Your task to perform on an android device: change your default location settings in chrome Image 0: 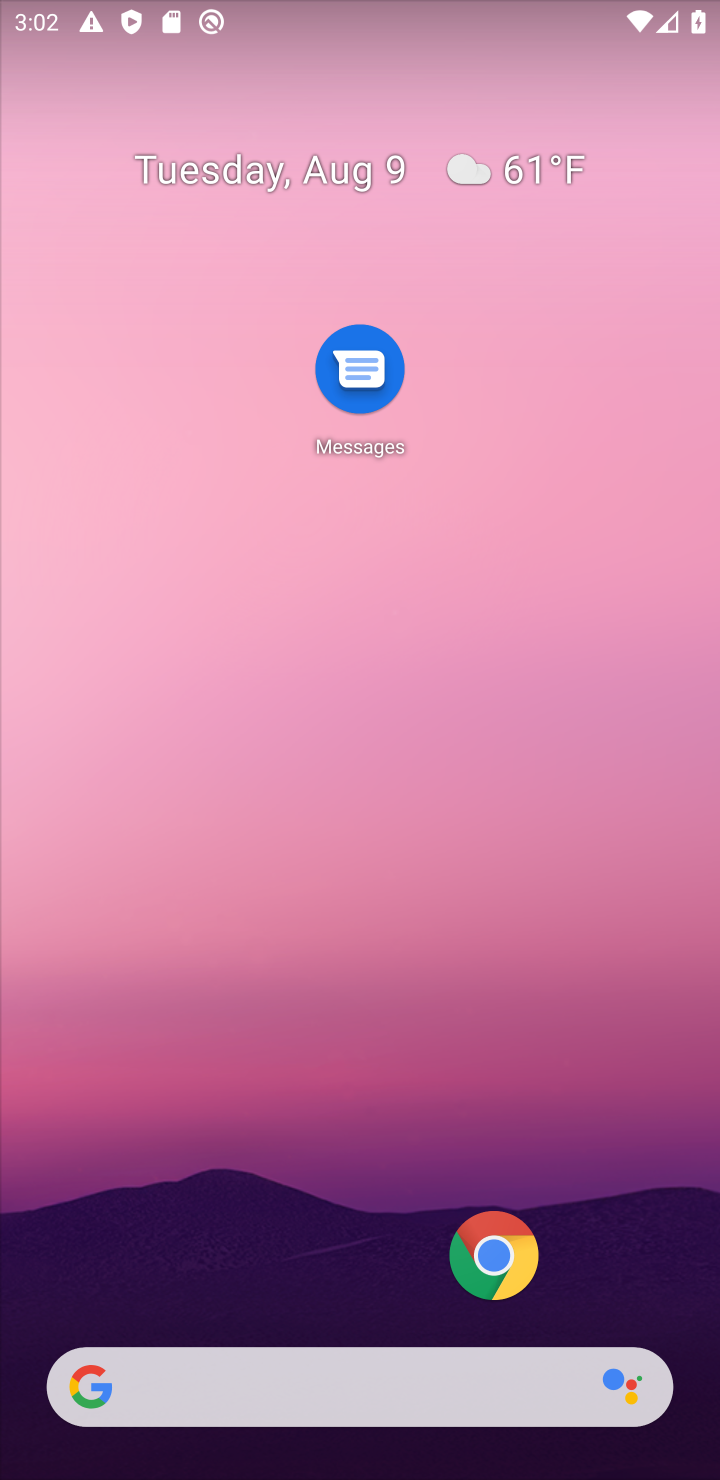
Step 0: drag from (358, 970) to (442, 426)
Your task to perform on an android device: change your default location settings in chrome Image 1: 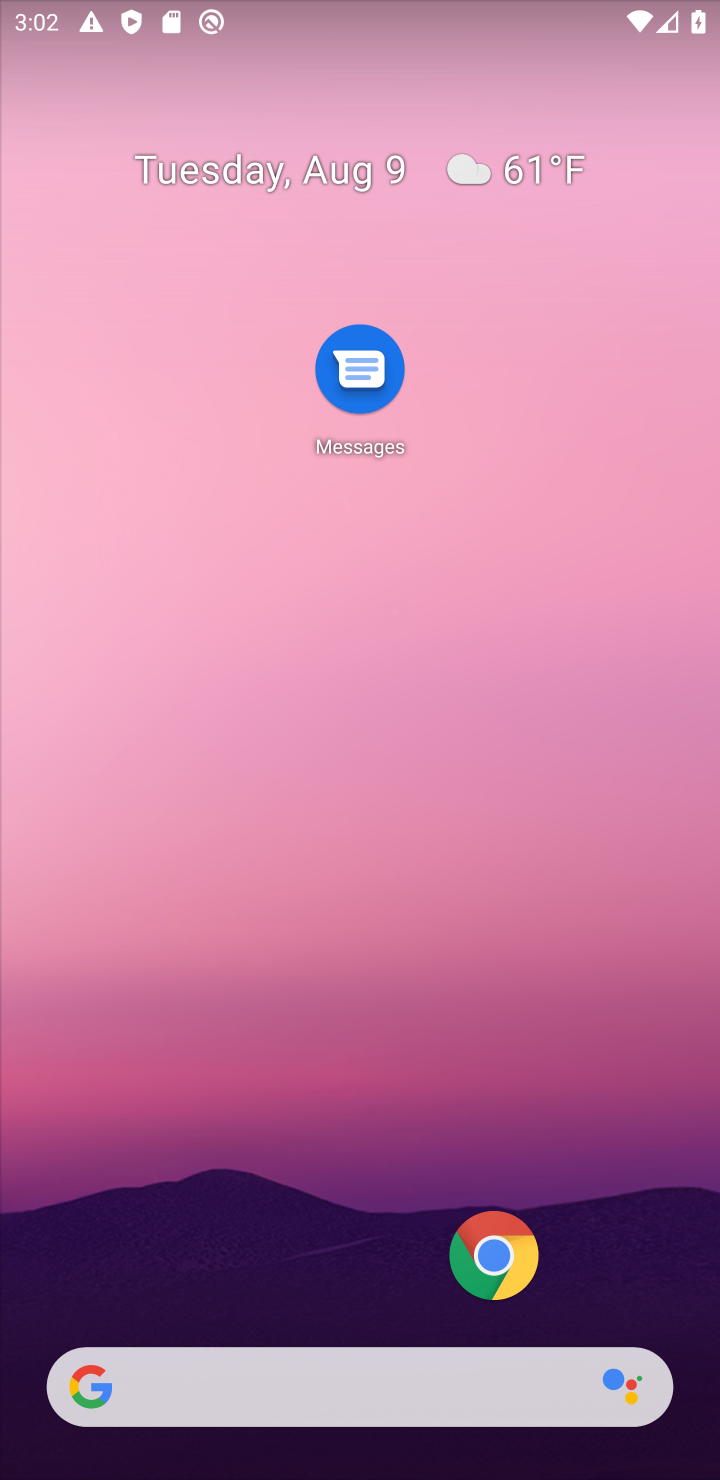
Step 1: drag from (321, 1355) to (492, 244)
Your task to perform on an android device: change your default location settings in chrome Image 2: 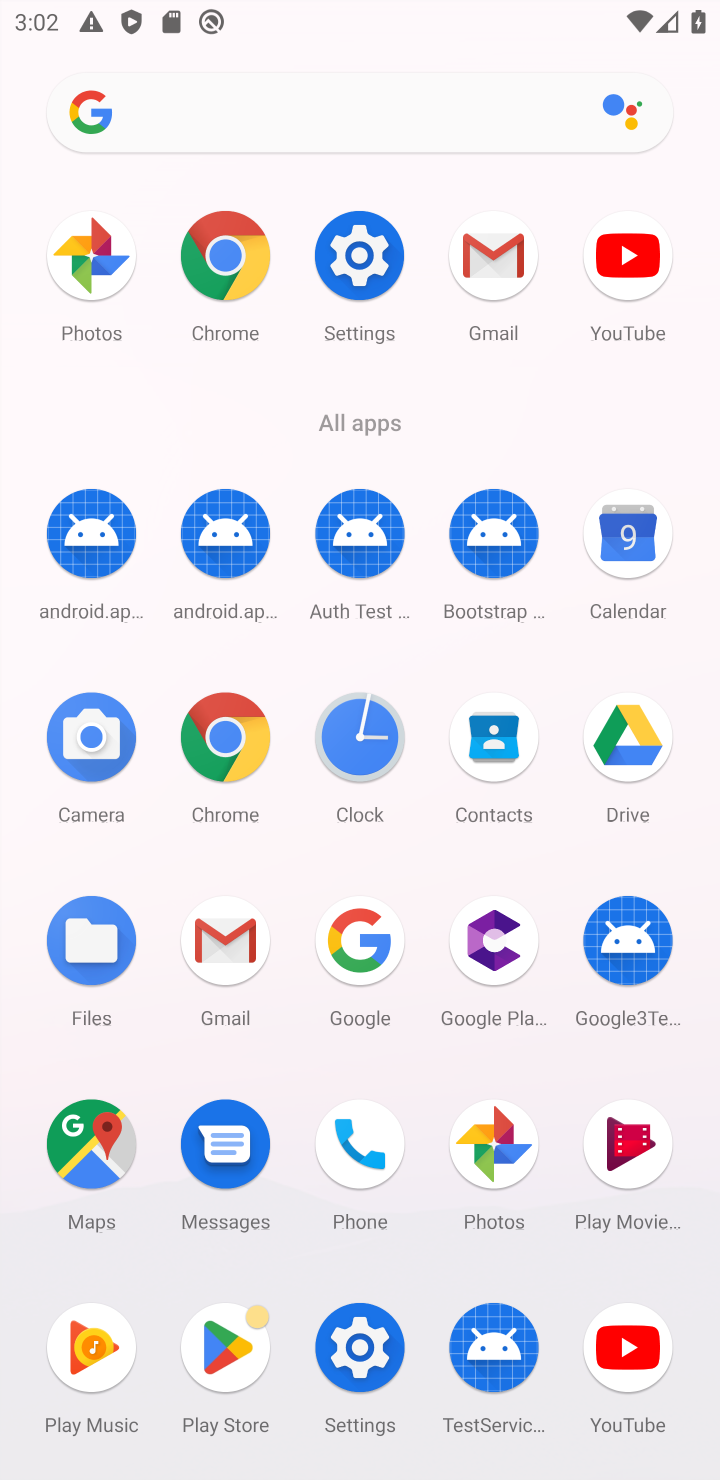
Step 2: click (241, 725)
Your task to perform on an android device: change your default location settings in chrome Image 3: 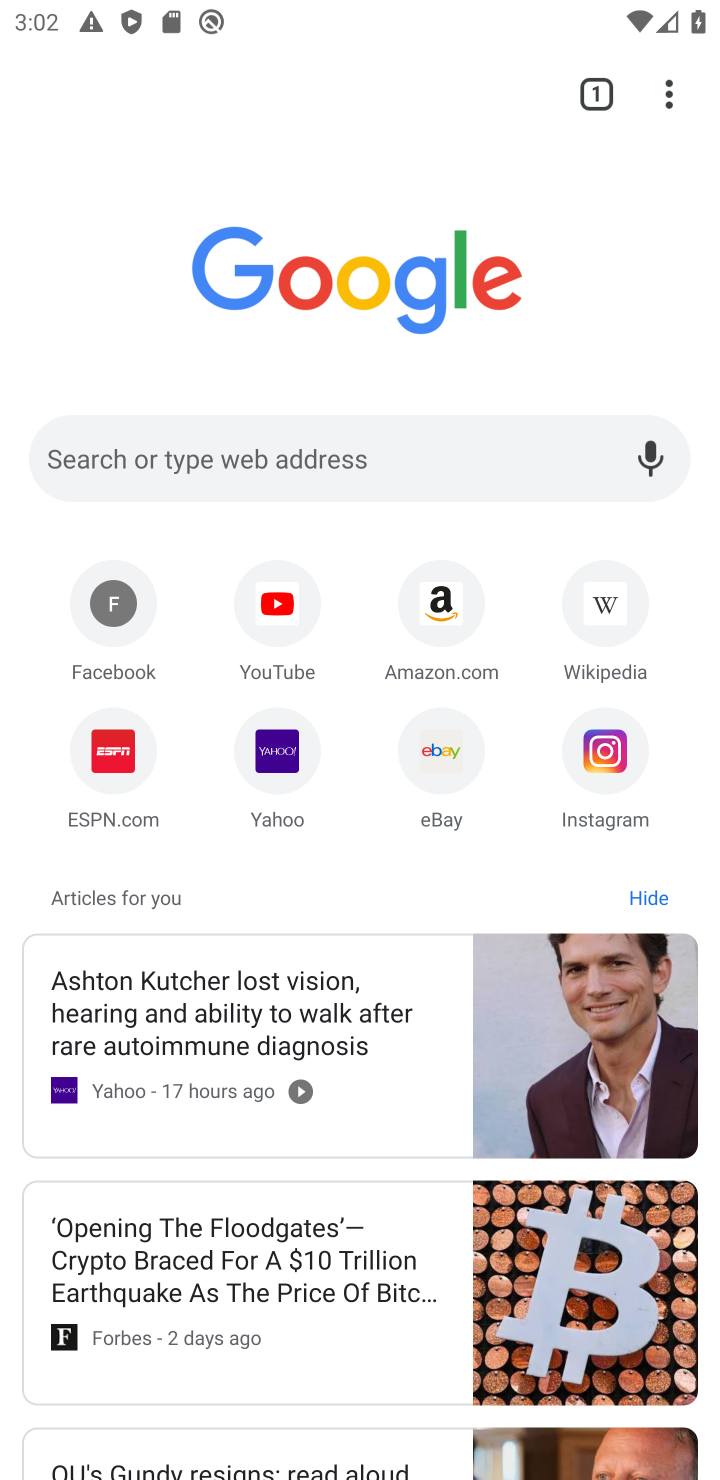
Step 3: click (659, 104)
Your task to perform on an android device: change your default location settings in chrome Image 4: 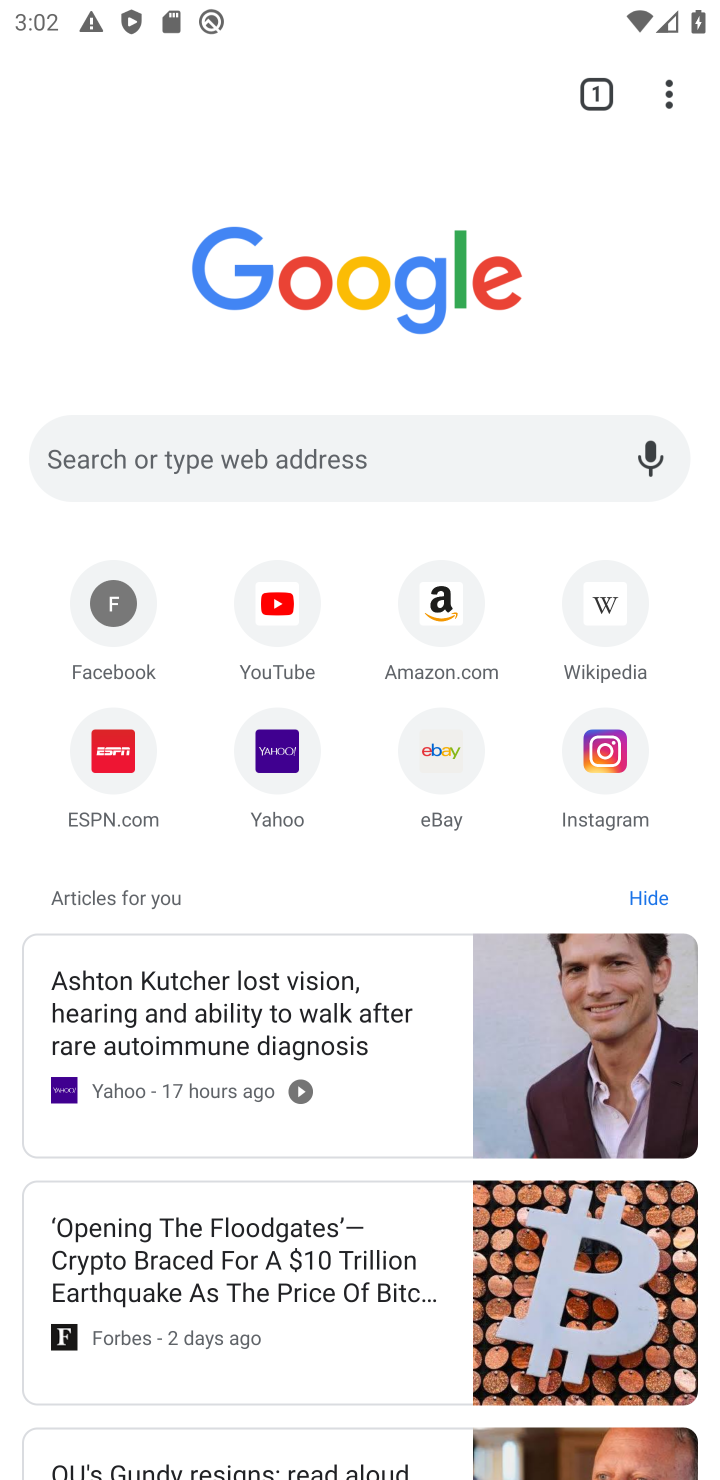
Step 4: click (659, 87)
Your task to perform on an android device: change your default location settings in chrome Image 5: 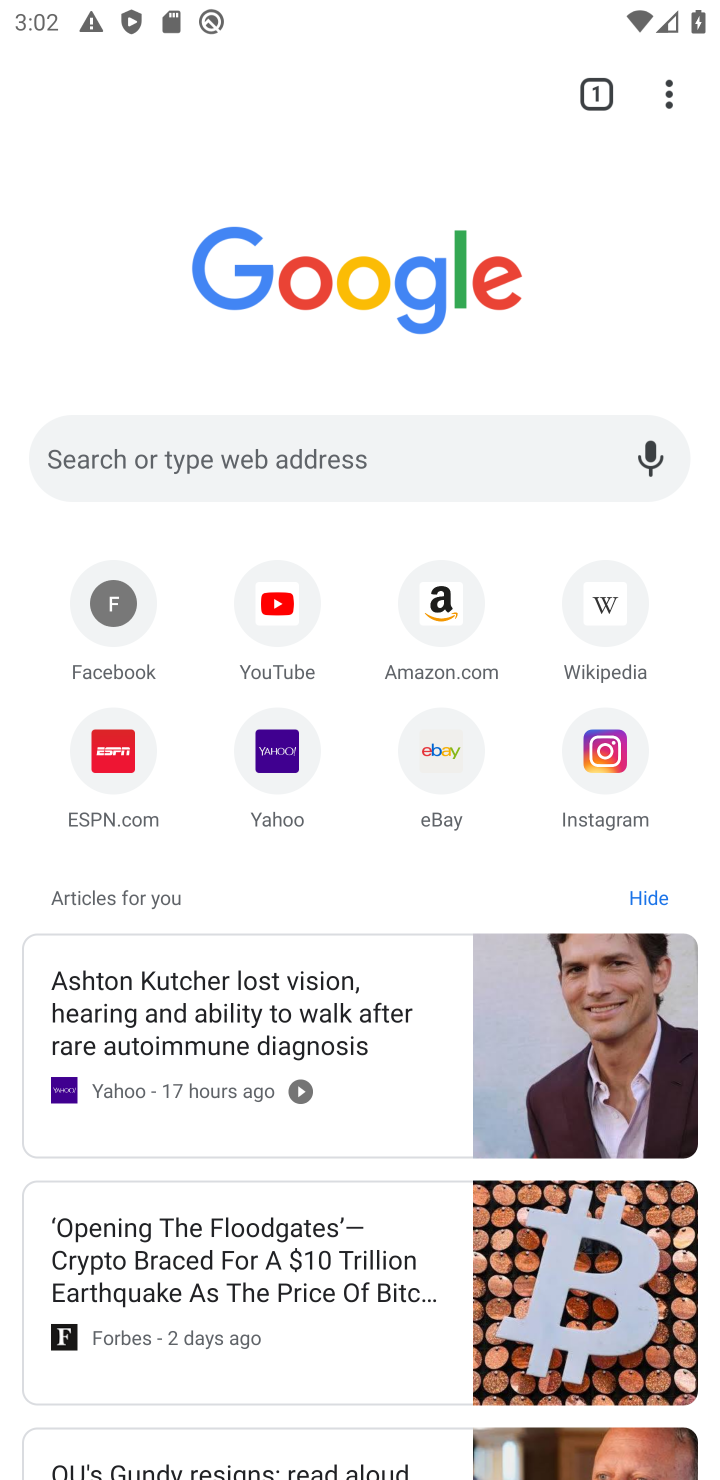
Step 5: click (663, 74)
Your task to perform on an android device: change your default location settings in chrome Image 6: 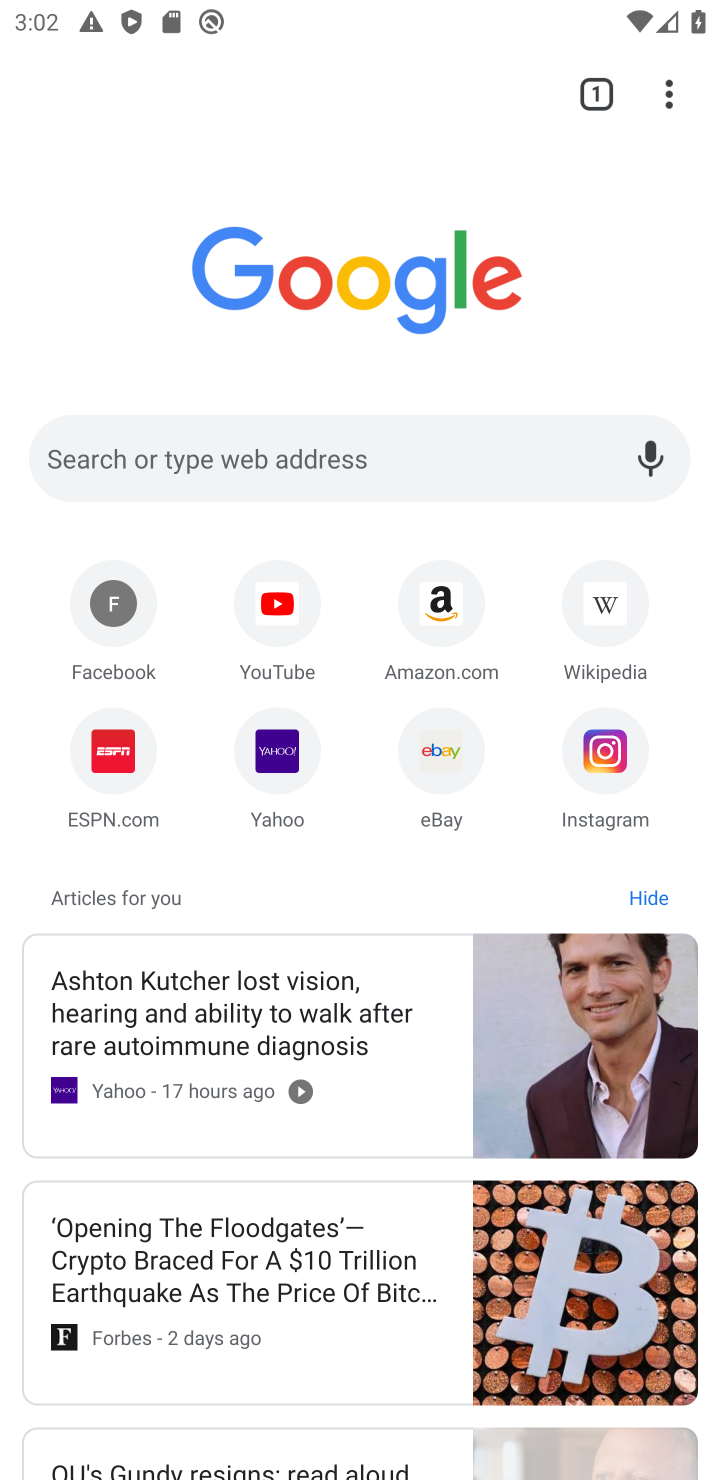
Step 6: click (670, 91)
Your task to perform on an android device: change your default location settings in chrome Image 7: 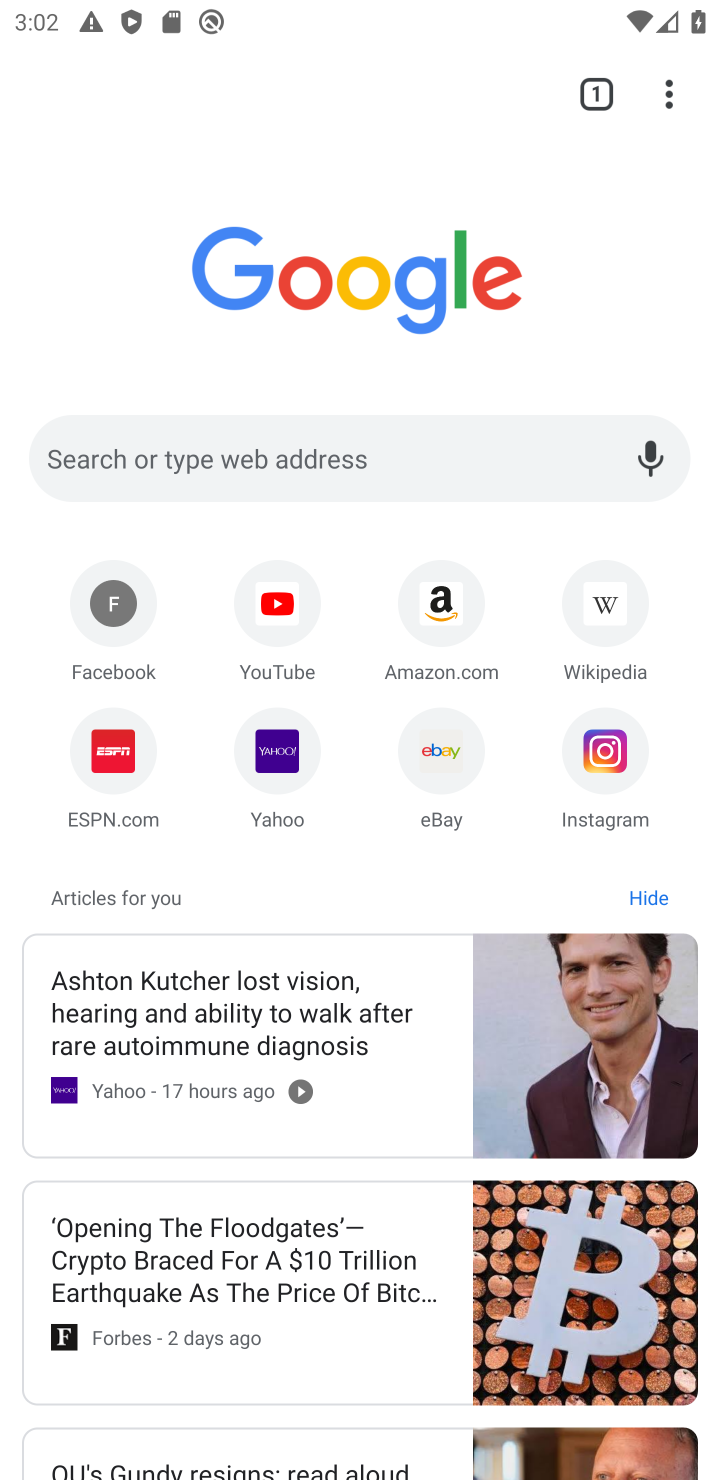
Step 7: click (670, 91)
Your task to perform on an android device: change your default location settings in chrome Image 8: 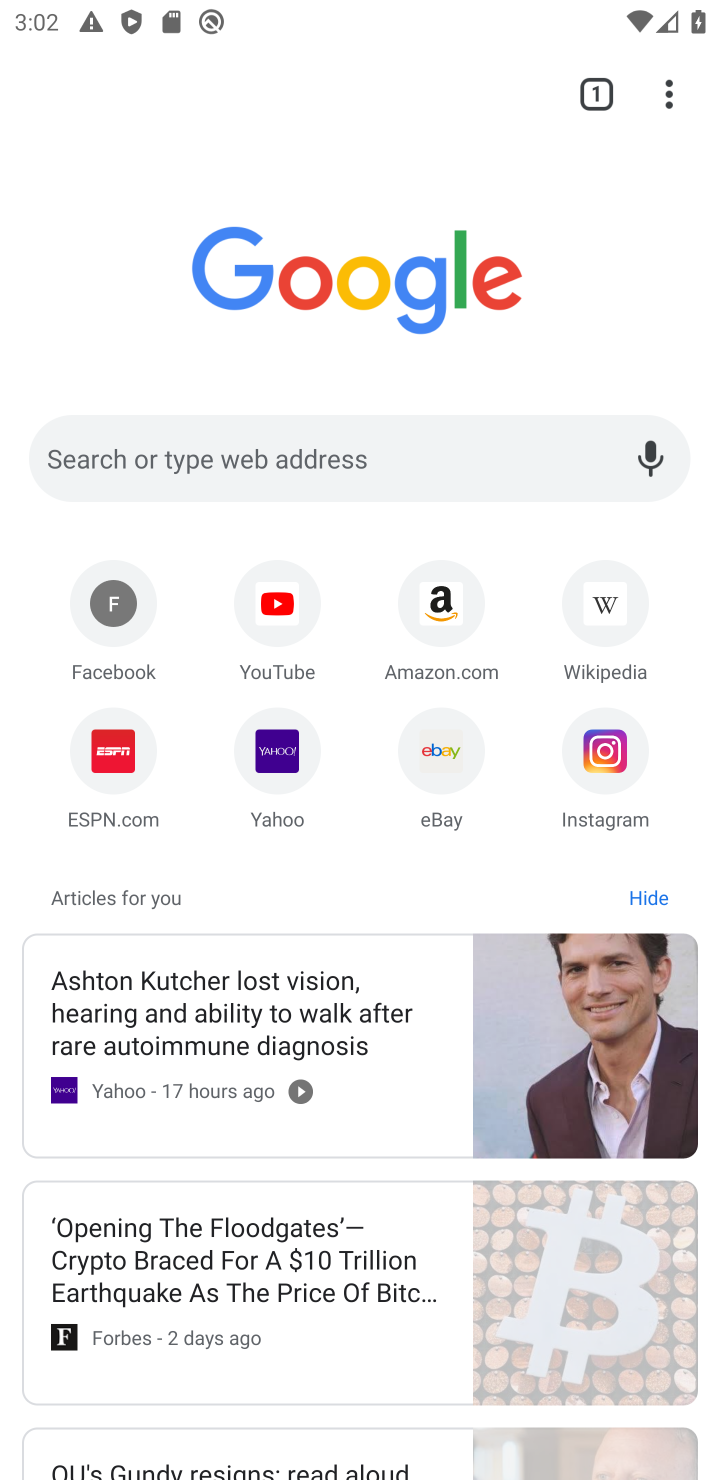
Step 8: click (670, 91)
Your task to perform on an android device: change your default location settings in chrome Image 9: 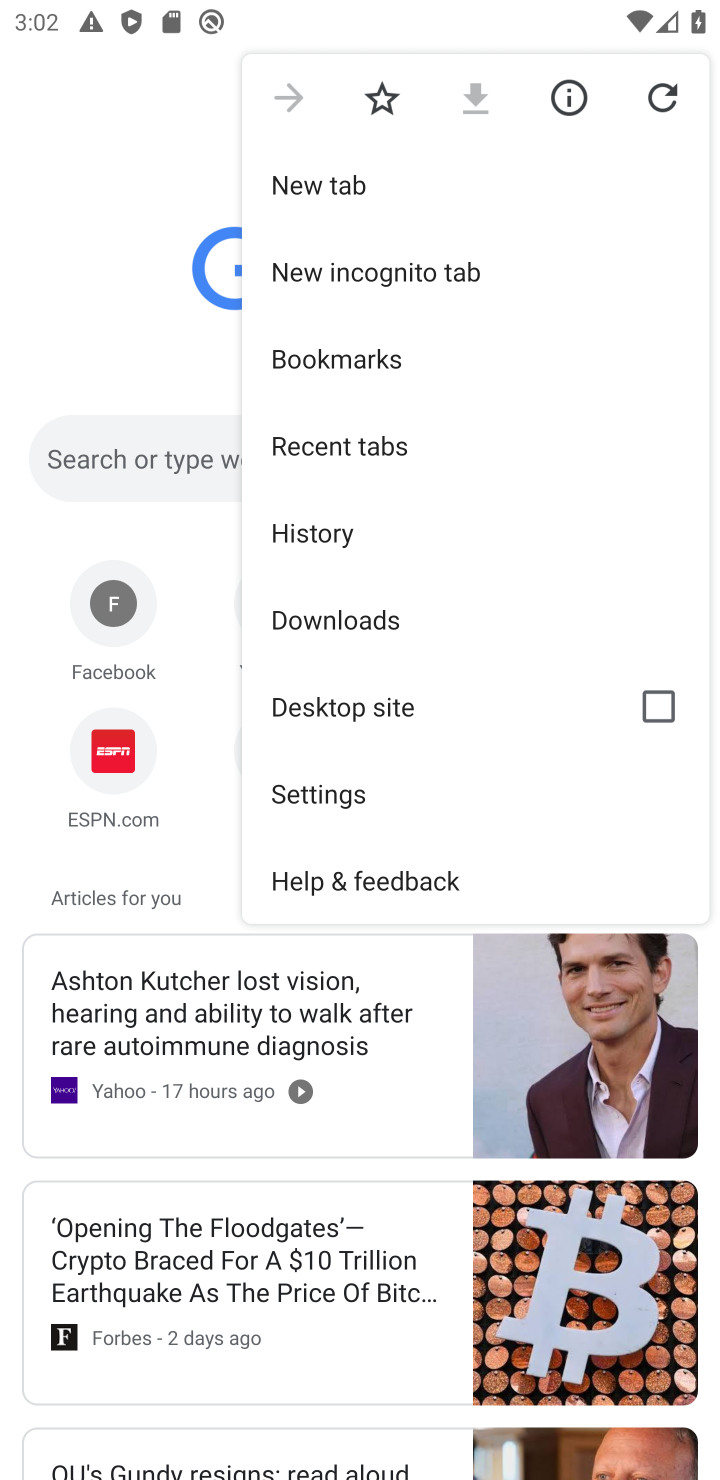
Step 9: click (368, 799)
Your task to perform on an android device: change your default location settings in chrome Image 10: 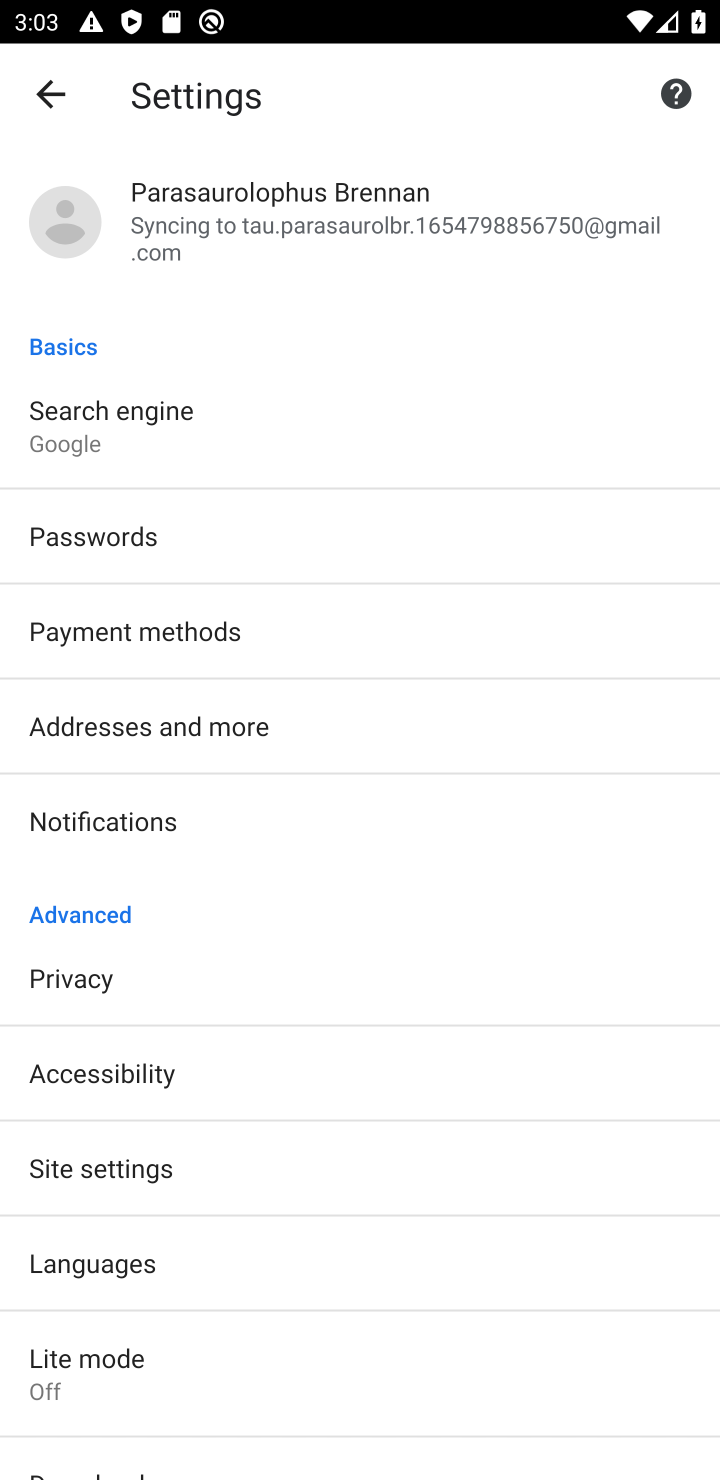
Step 10: click (185, 1162)
Your task to perform on an android device: change your default location settings in chrome Image 11: 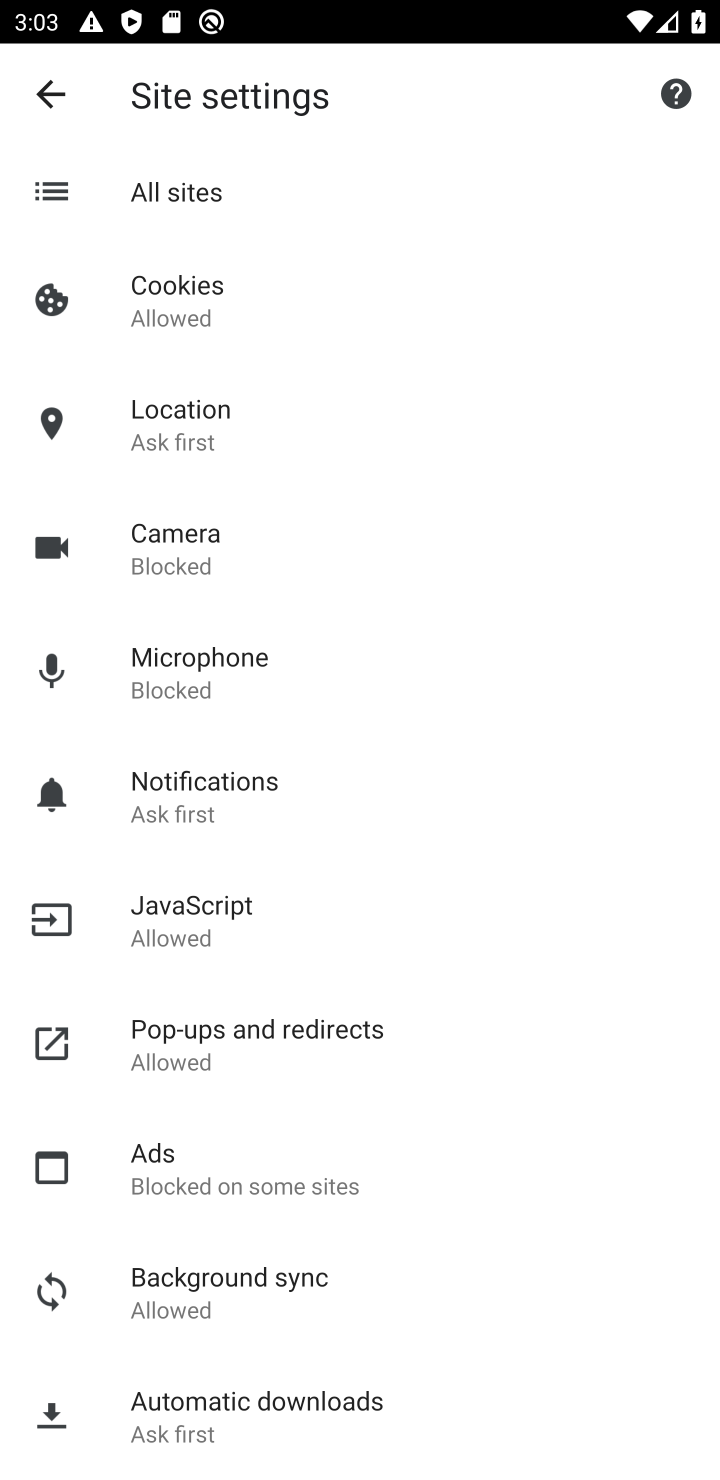
Step 11: click (206, 435)
Your task to perform on an android device: change your default location settings in chrome Image 12: 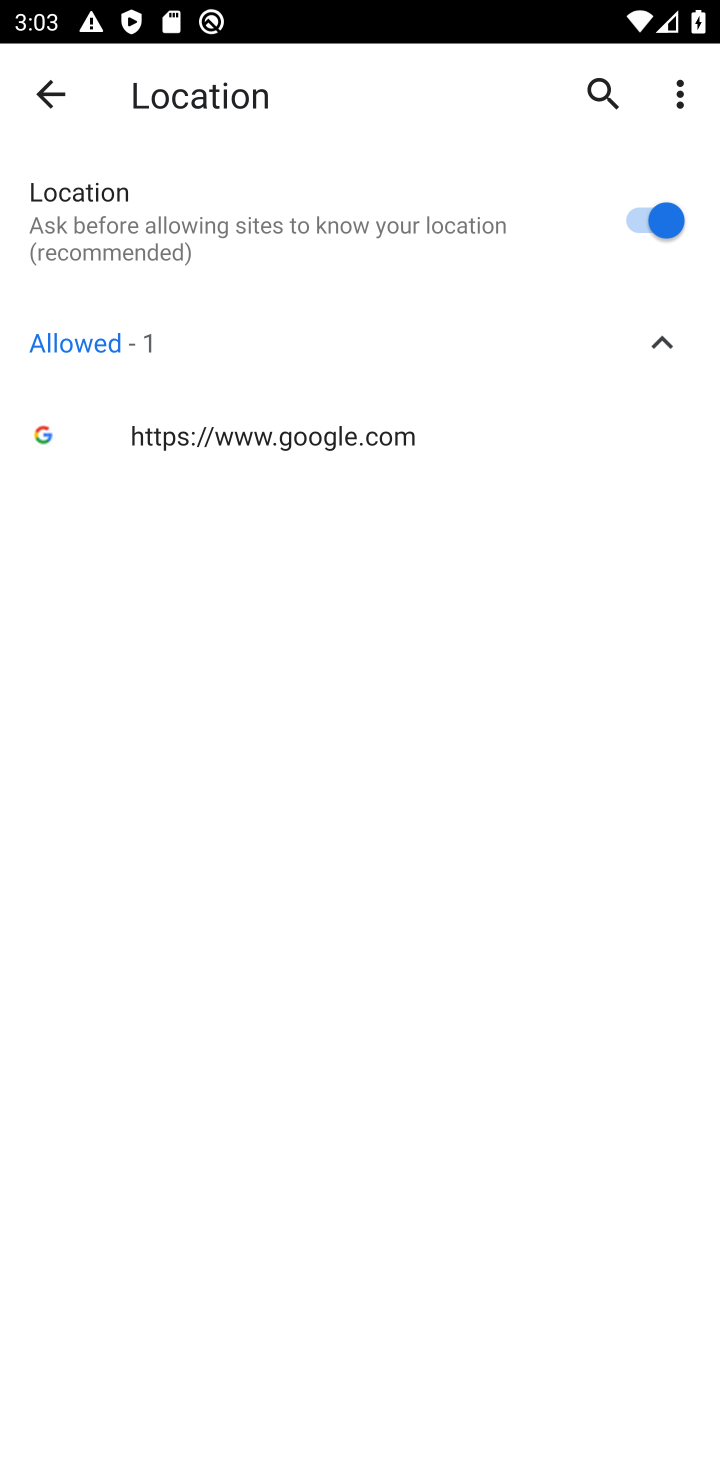
Step 12: click (662, 208)
Your task to perform on an android device: change your default location settings in chrome Image 13: 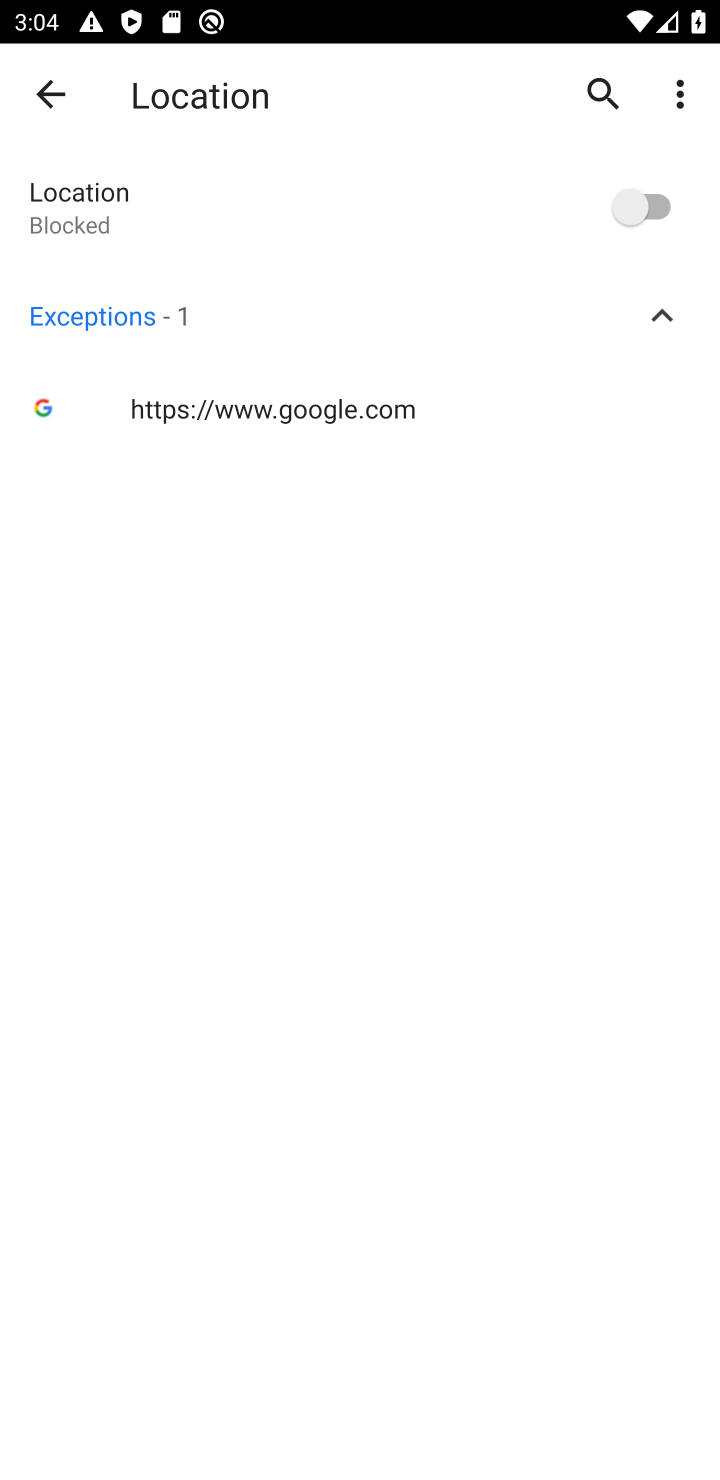
Step 13: task complete